Your task to perform on an android device: Check the news Image 0: 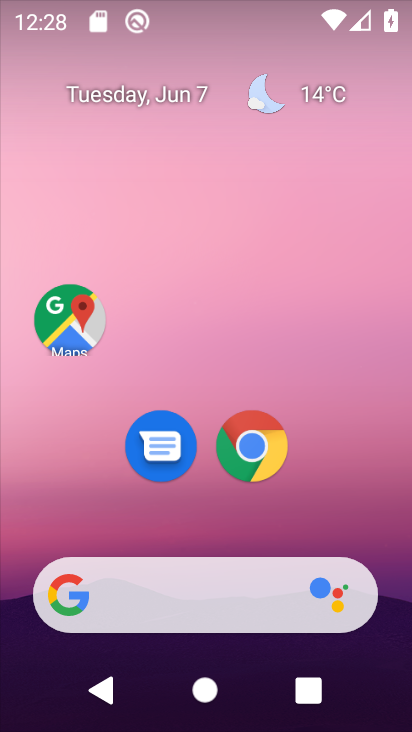
Step 0: click (197, 591)
Your task to perform on an android device: Check the news Image 1: 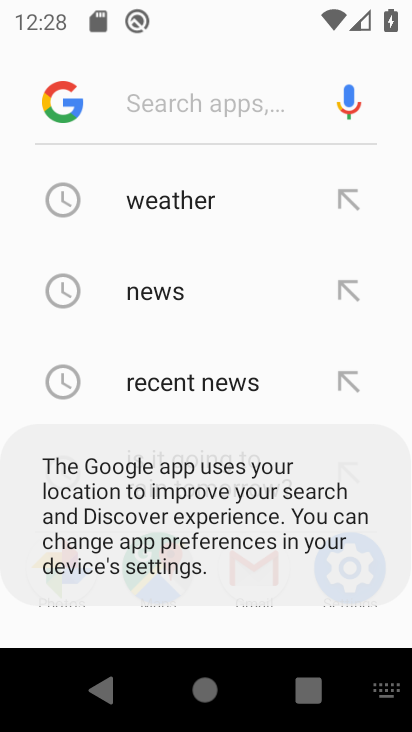
Step 1: click (156, 294)
Your task to perform on an android device: Check the news Image 2: 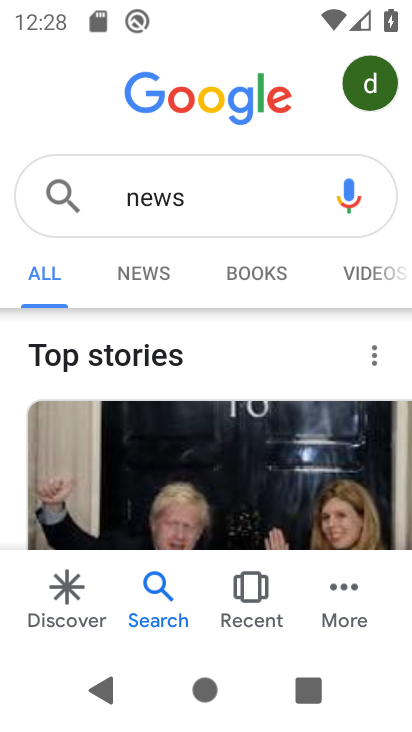
Step 2: task complete